Your task to perform on an android device: Toggle the flashlight Image 0: 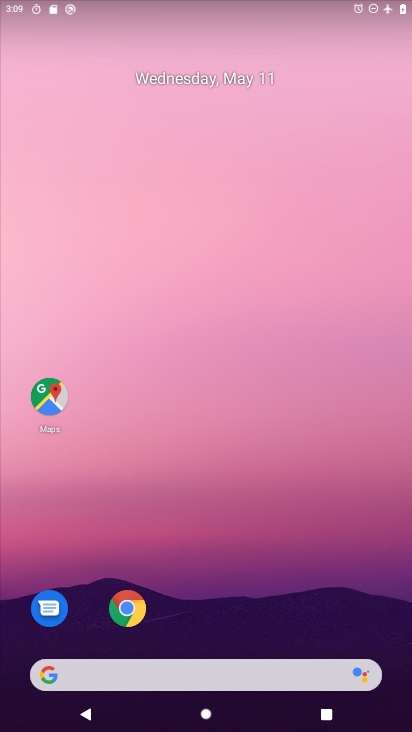
Step 0: drag from (242, 633) to (278, 72)
Your task to perform on an android device: Toggle the flashlight Image 1: 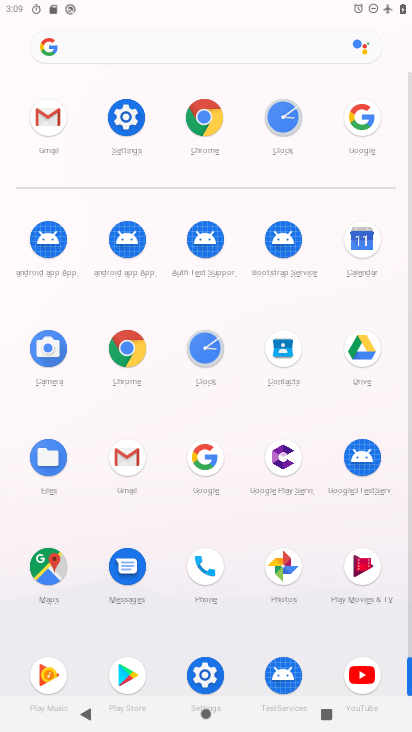
Step 1: task complete